Your task to perform on an android device: turn on javascript in the chrome app Image 0: 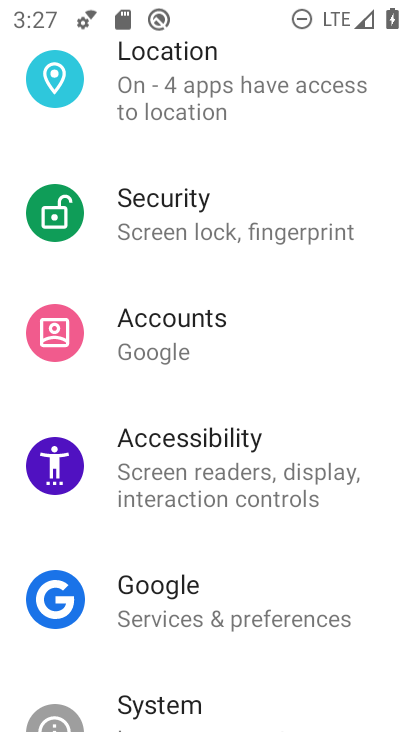
Step 0: press home button
Your task to perform on an android device: turn on javascript in the chrome app Image 1: 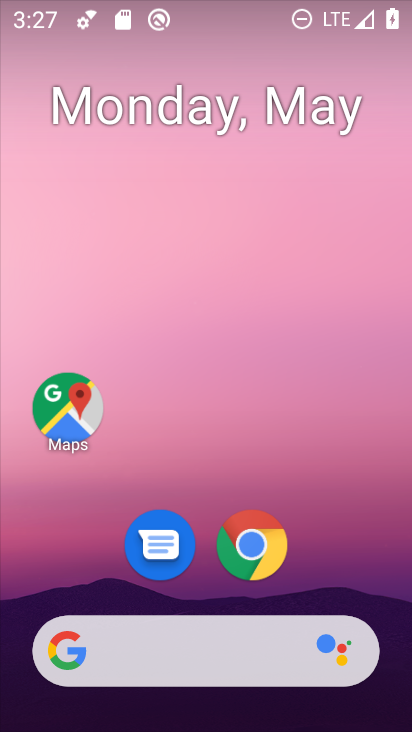
Step 1: click (245, 573)
Your task to perform on an android device: turn on javascript in the chrome app Image 2: 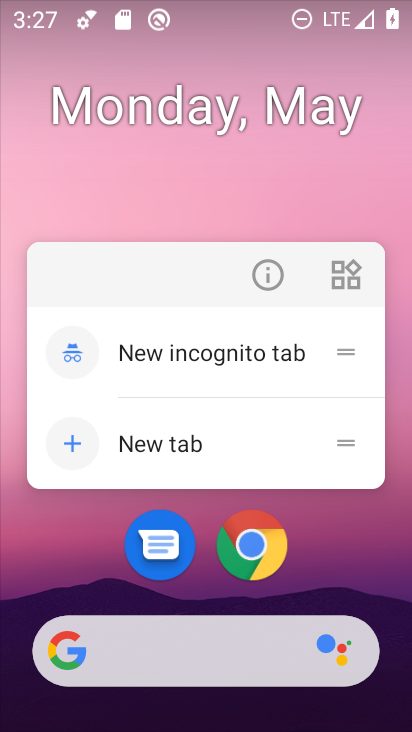
Step 2: click (274, 554)
Your task to perform on an android device: turn on javascript in the chrome app Image 3: 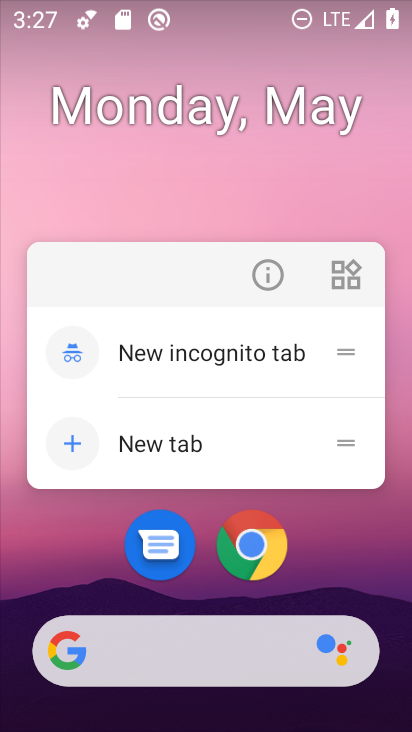
Step 3: click (262, 553)
Your task to perform on an android device: turn on javascript in the chrome app Image 4: 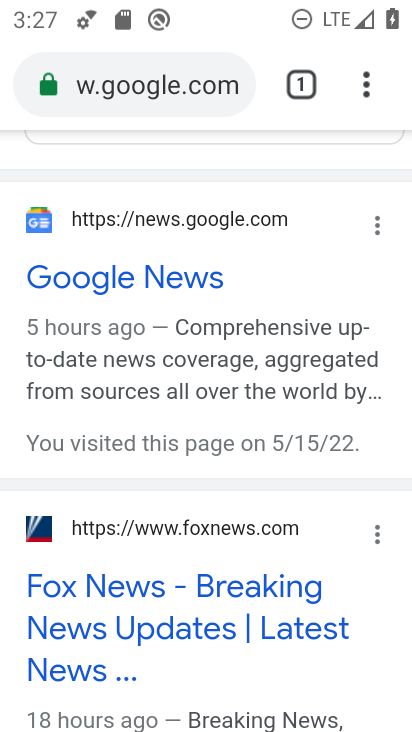
Step 4: click (367, 92)
Your task to perform on an android device: turn on javascript in the chrome app Image 5: 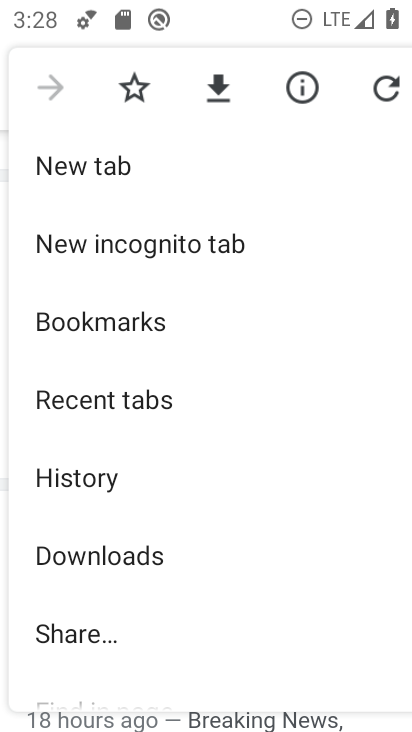
Step 5: drag from (206, 639) to (228, 201)
Your task to perform on an android device: turn on javascript in the chrome app Image 6: 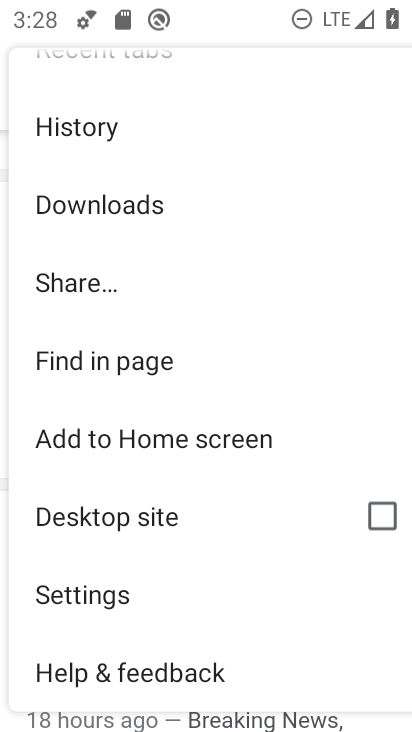
Step 6: click (111, 604)
Your task to perform on an android device: turn on javascript in the chrome app Image 7: 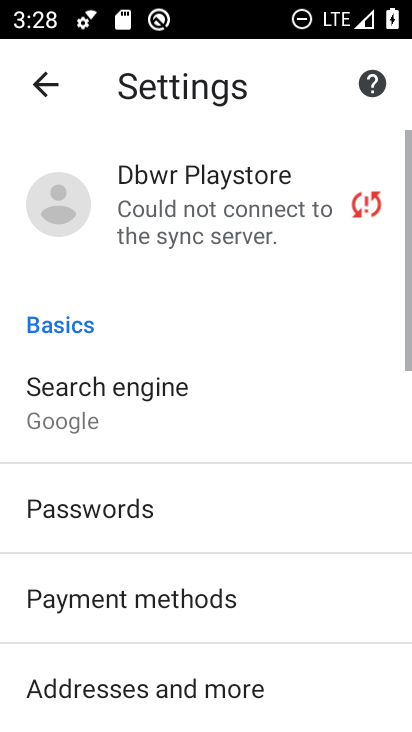
Step 7: drag from (140, 638) to (225, 199)
Your task to perform on an android device: turn on javascript in the chrome app Image 8: 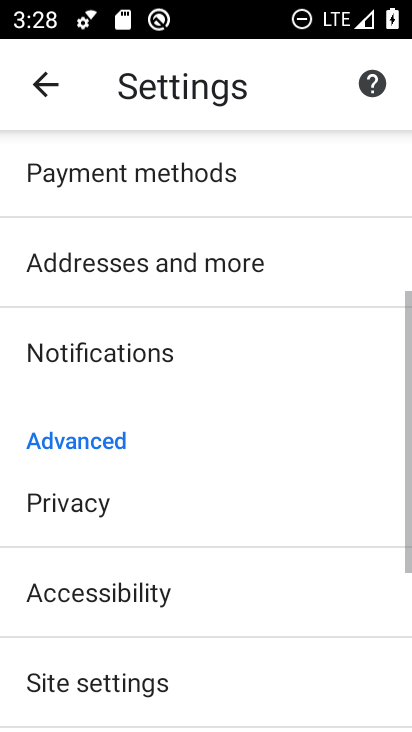
Step 8: drag from (180, 646) to (201, 330)
Your task to perform on an android device: turn on javascript in the chrome app Image 9: 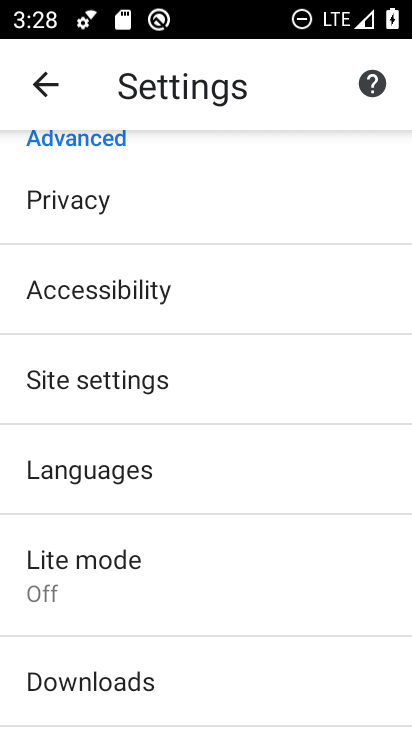
Step 9: click (112, 384)
Your task to perform on an android device: turn on javascript in the chrome app Image 10: 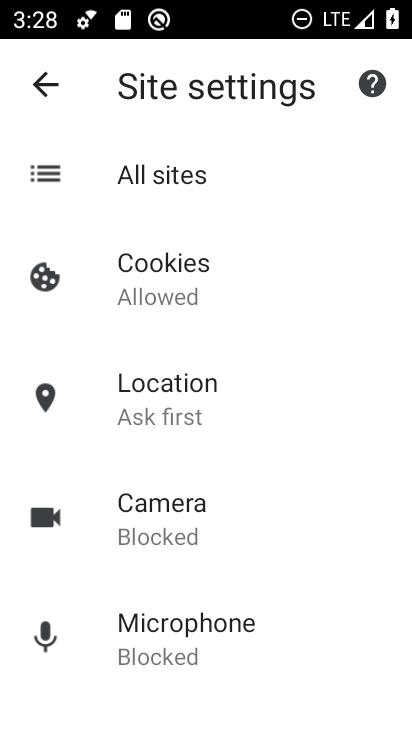
Step 10: drag from (228, 670) to (213, 303)
Your task to perform on an android device: turn on javascript in the chrome app Image 11: 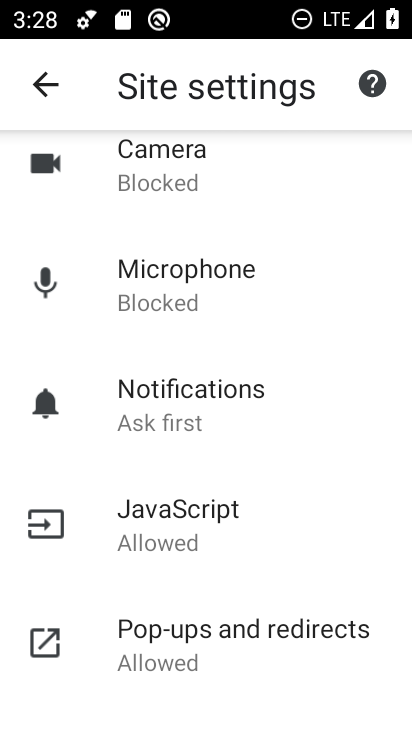
Step 11: click (187, 524)
Your task to perform on an android device: turn on javascript in the chrome app Image 12: 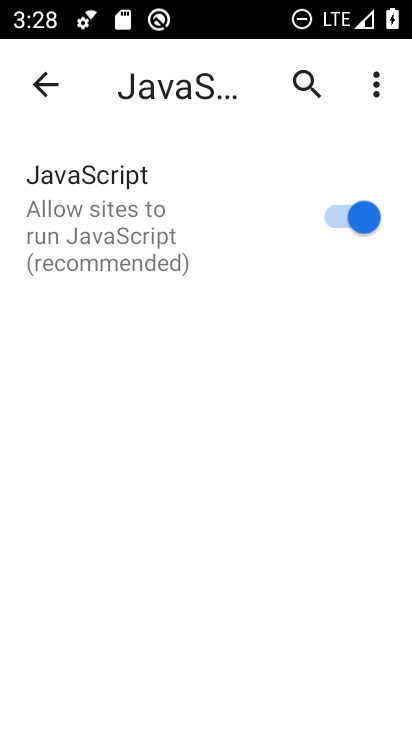
Step 12: task complete